Your task to perform on an android device: turn smart compose on in the gmail app Image 0: 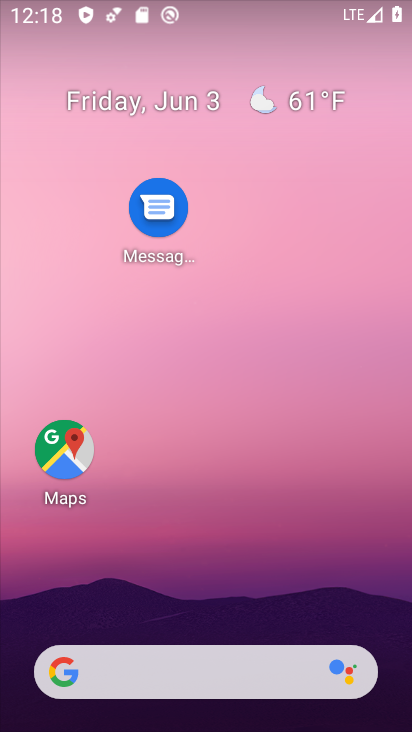
Step 0: drag from (227, 632) to (174, 108)
Your task to perform on an android device: turn smart compose on in the gmail app Image 1: 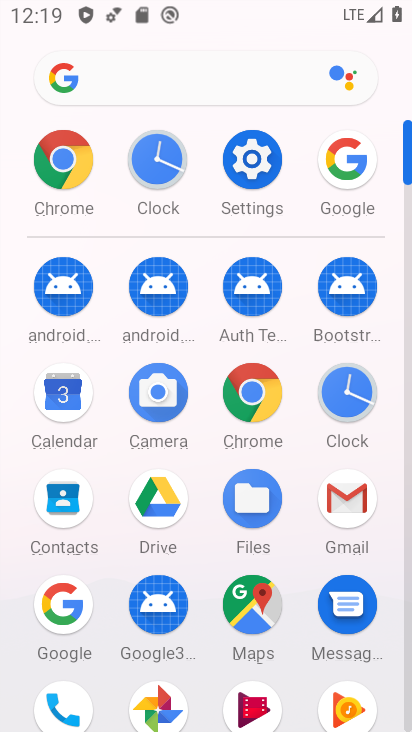
Step 1: click (341, 502)
Your task to perform on an android device: turn smart compose on in the gmail app Image 2: 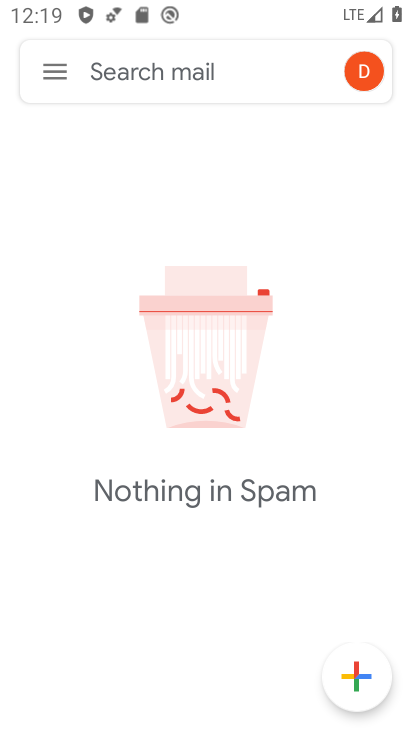
Step 2: click (48, 71)
Your task to perform on an android device: turn smart compose on in the gmail app Image 3: 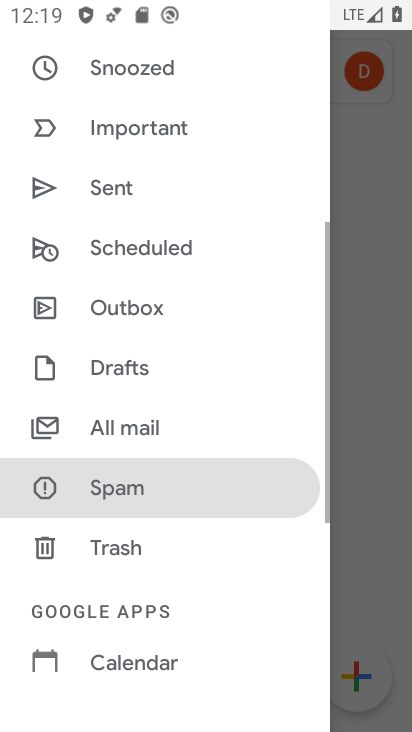
Step 3: drag from (177, 570) to (171, 159)
Your task to perform on an android device: turn smart compose on in the gmail app Image 4: 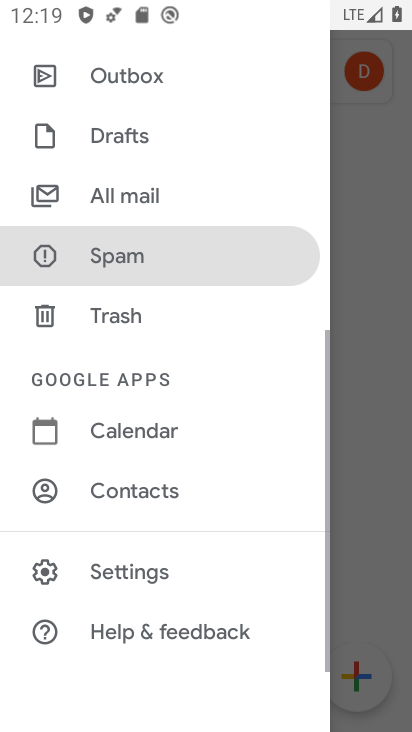
Step 4: click (141, 570)
Your task to perform on an android device: turn smart compose on in the gmail app Image 5: 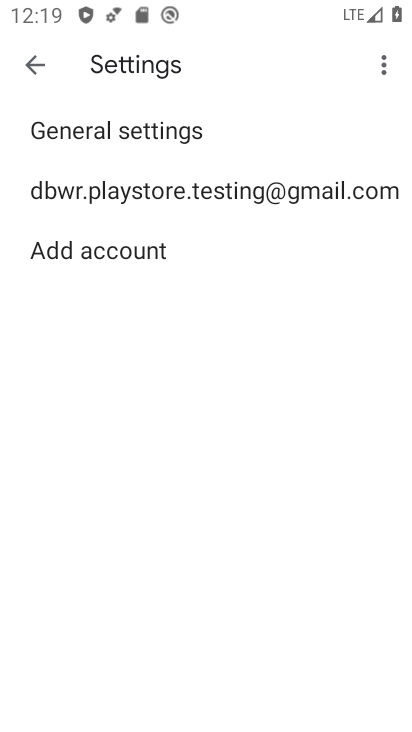
Step 5: click (130, 196)
Your task to perform on an android device: turn smart compose on in the gmail app Image 6: 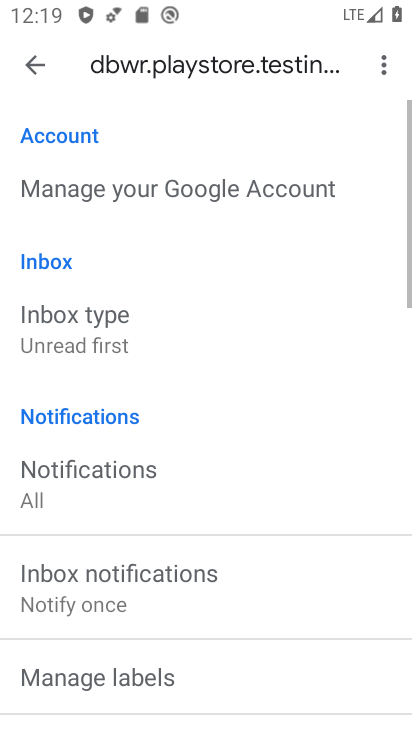
Step 6: task complete